Your task to perform on an android device: Search for seafood restaurants on Google Maps Image 0: 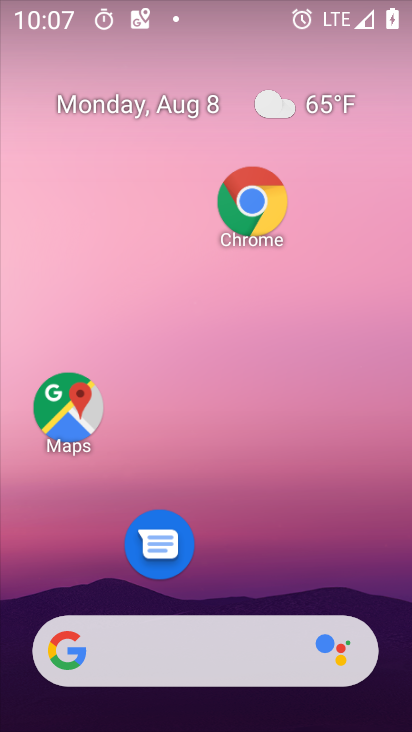
Step 0: drag from (225, 573) to (240, 64)
Your task to perform on an android device: Search for seafood restaurants on Google Maps Image 1: 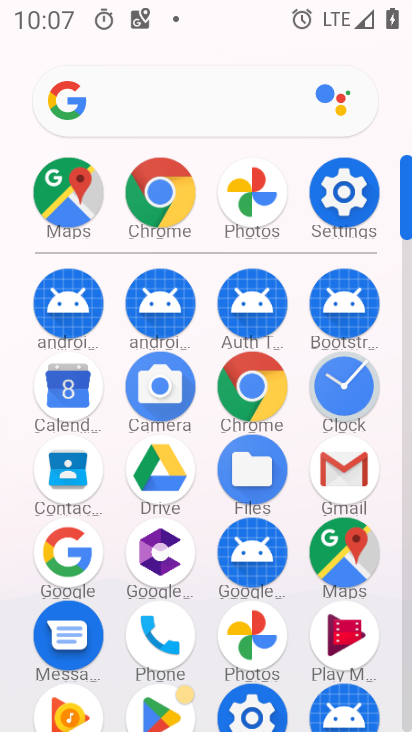
Step 1: click (343, 544)
Your task to perform on an android device: Search for seafood restaurants on Google Maps Image 2: 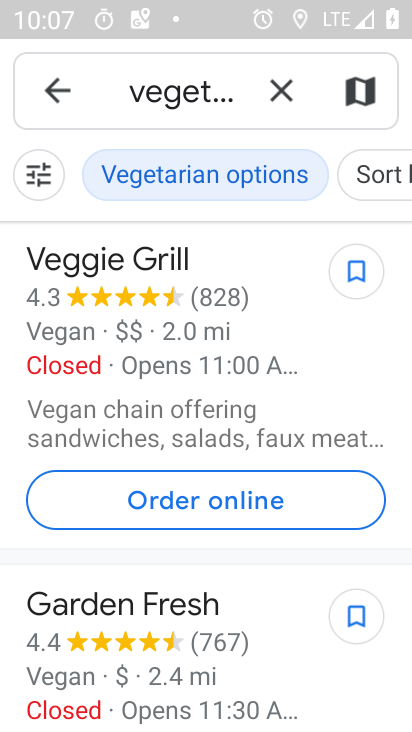
Step 2: click (281, 98)
Your task to perform on an android device: Search for seafood restaurants on Google Maps Image 3: 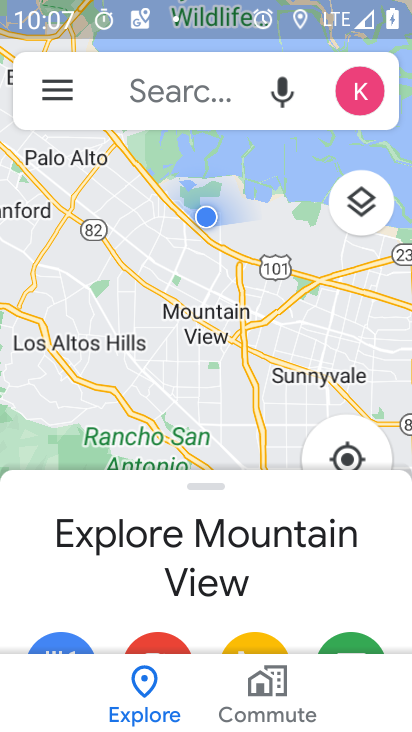
Step 3: click (177, 90)
Your task to perform on an android device: Search for seafood restaurants on Google Maps Image 4: 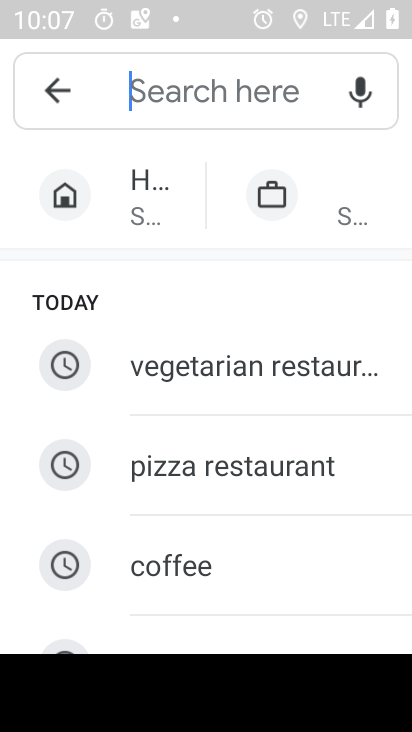
Step 4: drag from (237, 574) to (215, 201)
Your task to perform on an android device: Search for seafood restaurants on Google Maps Image 5: 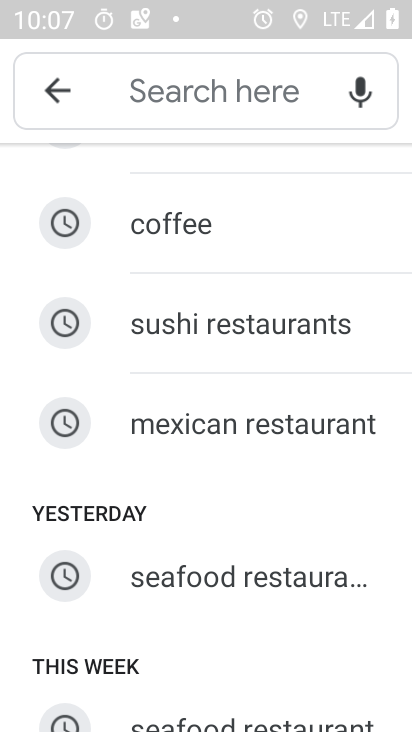
Step 5: click (212, 581)
Your task to perform on an android device: Search for seafood restaurants on Google Maps Image 6: 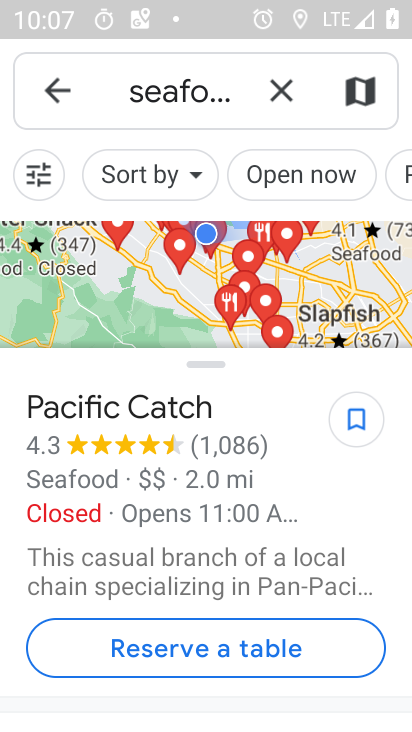
Step 6: task complete